Your task to perform on an android device: turn off airplane mode Image 0: 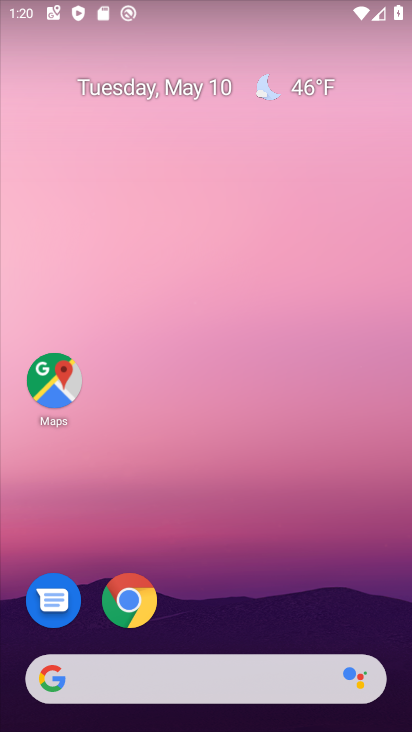
Step 0: drag from (138, 695) to (229, 151)
Your task to perform on an android device: turn off airplane mode Image 1: 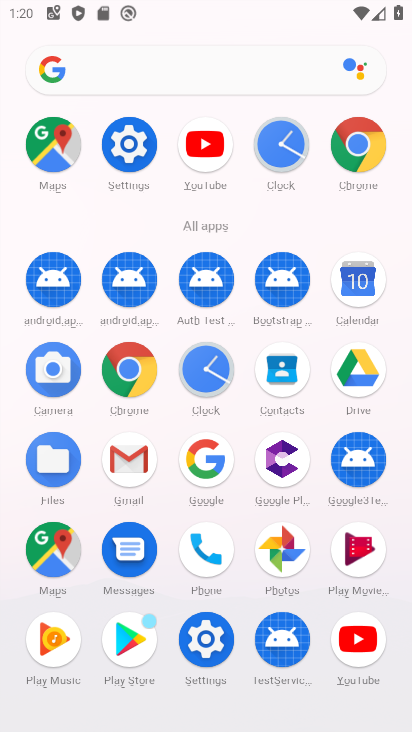
Step 1: click (129, 155)
Your task to perform on an android device: turn off airplane mode Image 2: 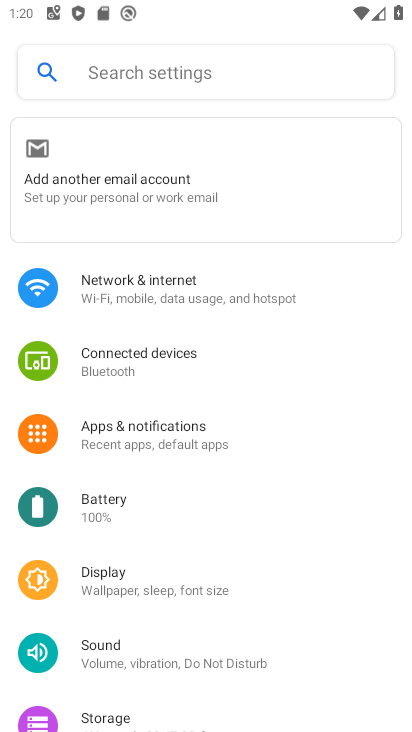
Step 2: click (160, 297)
Your task to perform on an android device: turn off airplane mode Image 3: 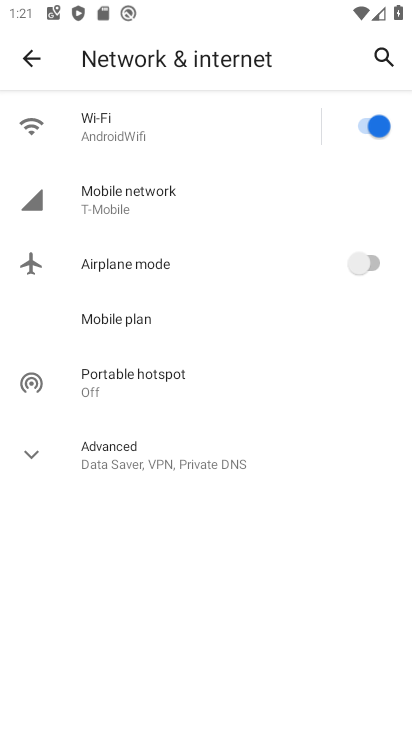
Step 3: task complete